Your task to perform on an android device: Open settings Image 0: 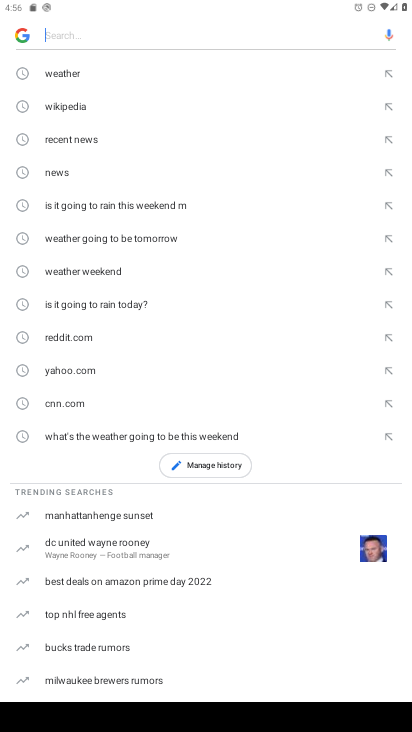
Step 0: press home button
Your task to perform on an android device: Open settings Image 1: 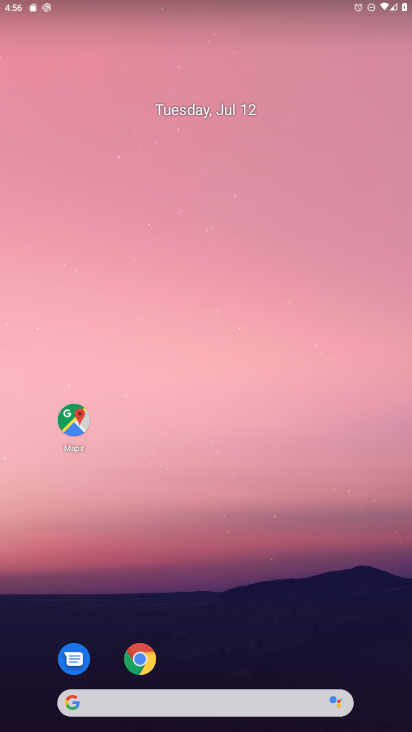
Step 1: drag from (174, 658) to (242, 187)
Your task to perform on an android device: Open settings Image 2: 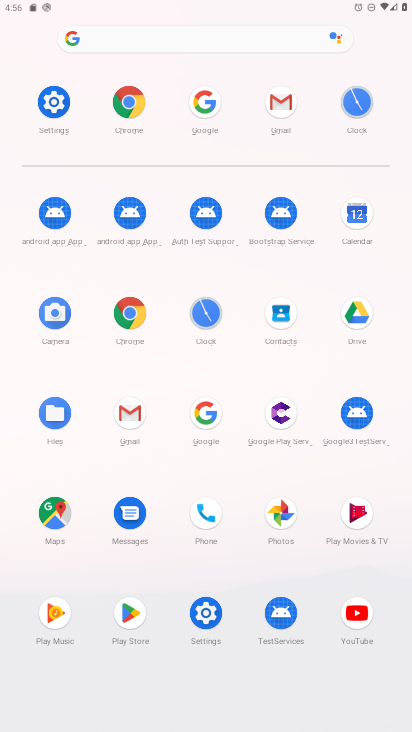
Step 2: click (59, 97)
Your task to perform on an android device: Open settings Image 3: 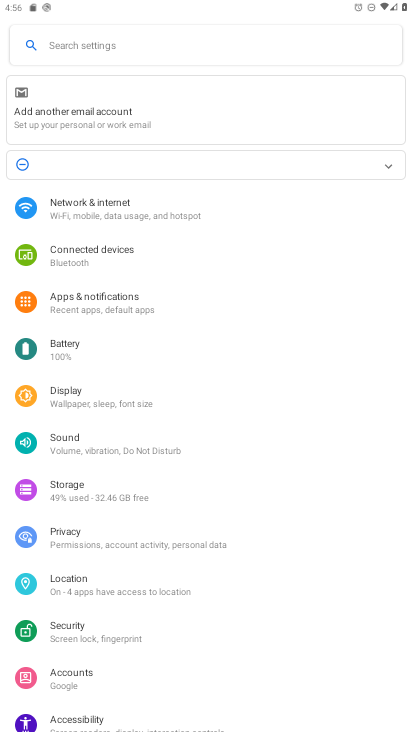
Step 3: task complete